Your task to perform on an android device: Open the web browser Image 0: 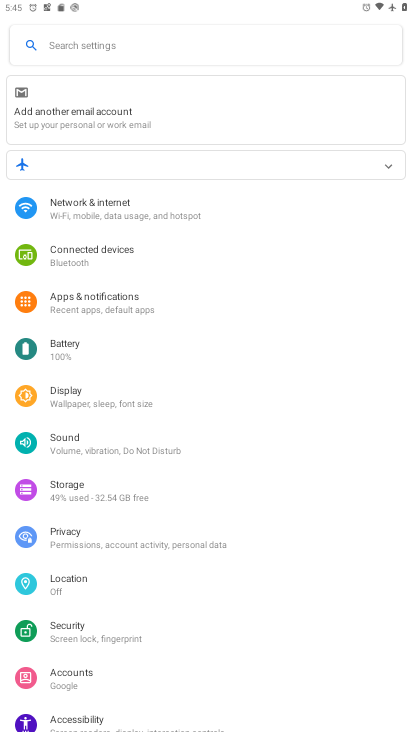
Step 0: press home button
Your task to perform on an android device: Open the web browser Image 1: 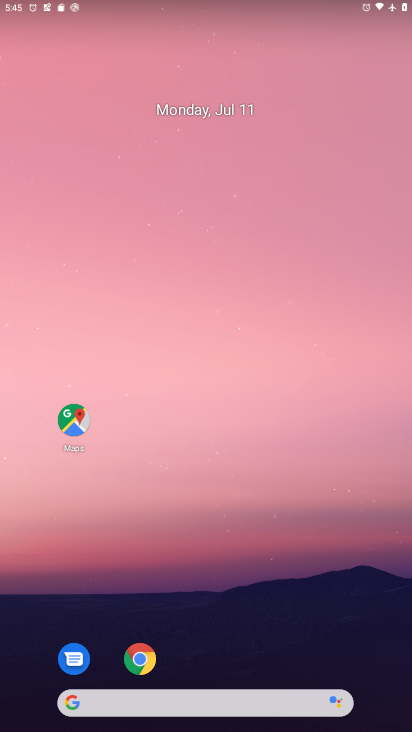
Step 1: click (142, 660)
Your task to perform on an android device: Open the web browser Image 2: 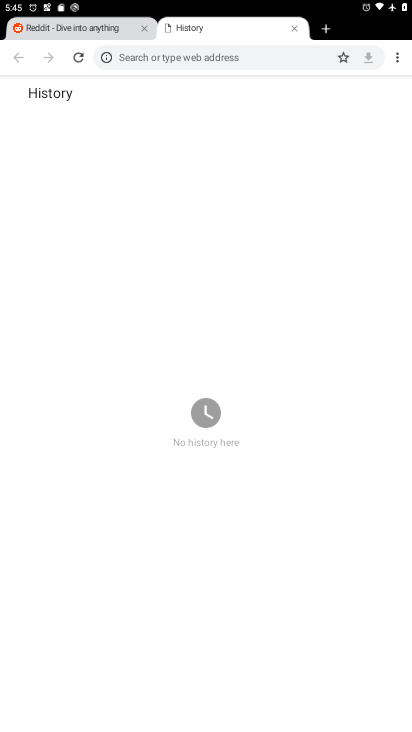
Step 2: task complete